Your task to perform on an android device: check the backup settings in the google photos Image 0: 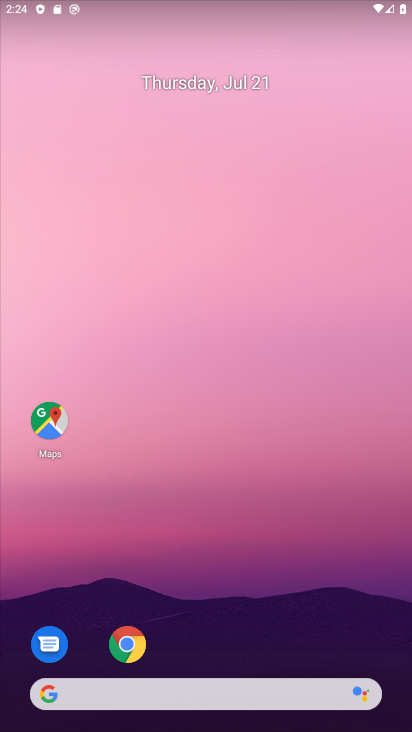
Step 0: drag from (204, 651) to (234, 109)
Your task to perform on an android device: check the backup settings in the google photos Image 1: 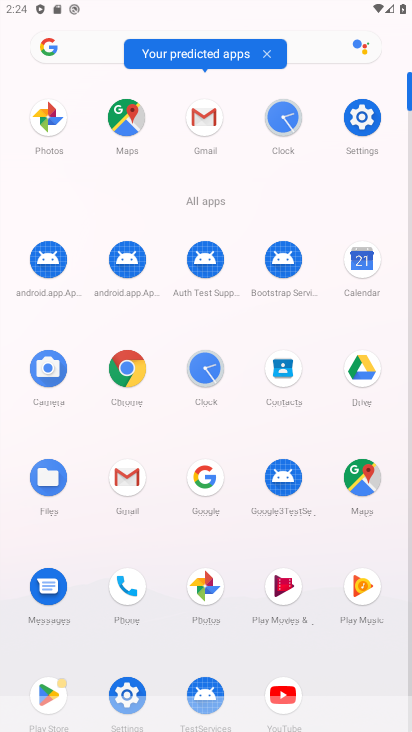
Step 1: click (196, 600)
Your task to perform on an android device: check the backup settings in the google photos Image 2: 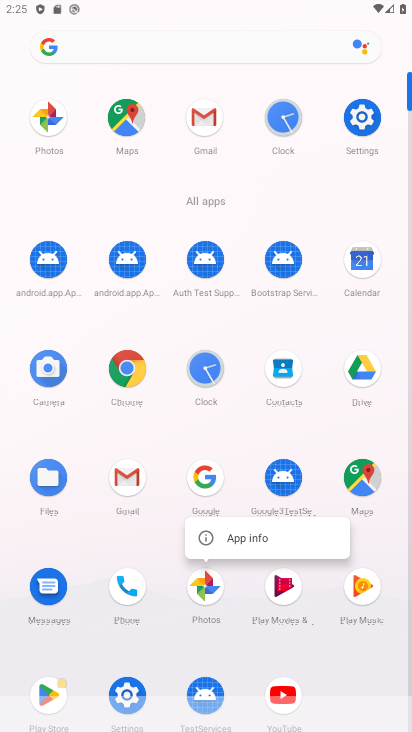
Step 2: click (200, 609)
Your task to perform on an android device: check the backup settings in the google photos Image 3: 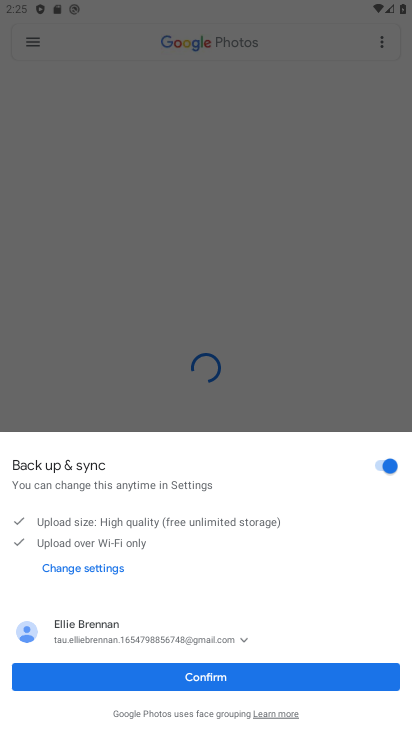
Step 3: click (216, 677)
Your task to perform on an android device: check the backup settings in the google photos Image 4: 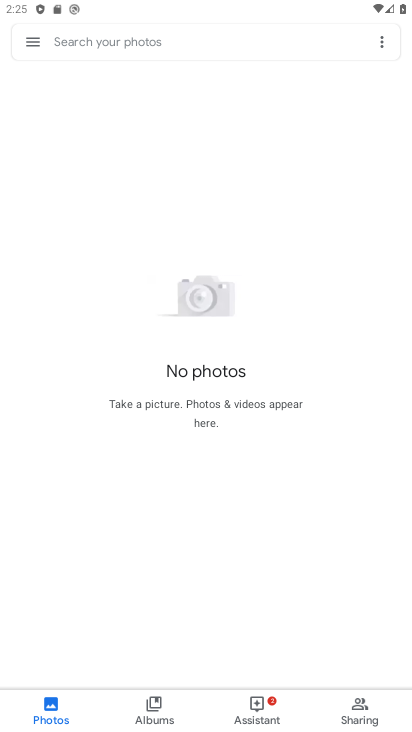
Step 4: press home button
Your task to perform on an android device: check the backup settings in the google photos Image 5: 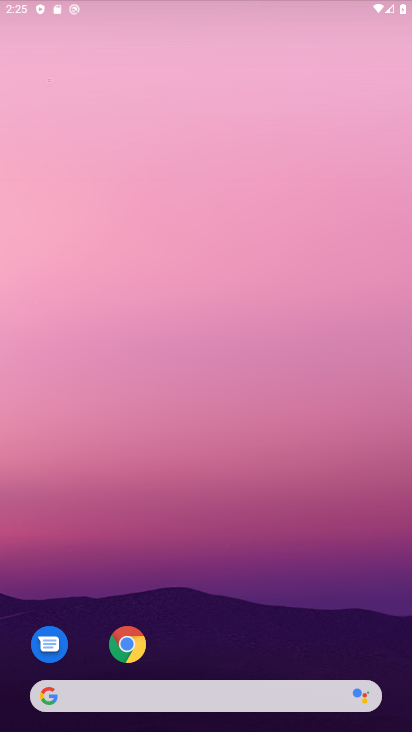
Step 5: drag from (267, 649) to (229, 0)
Your task to perform on an android device: check the backup settings in the google photos Image 6: 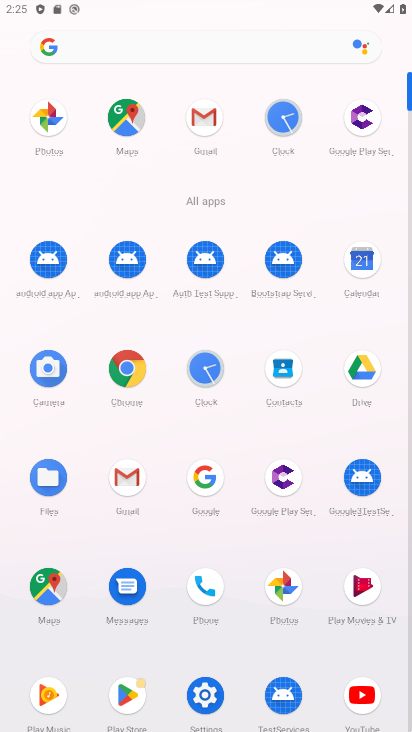
Step 6: click (285, 627)
Your task to perform on an android device: check the backup settings in the google photos Image 7: 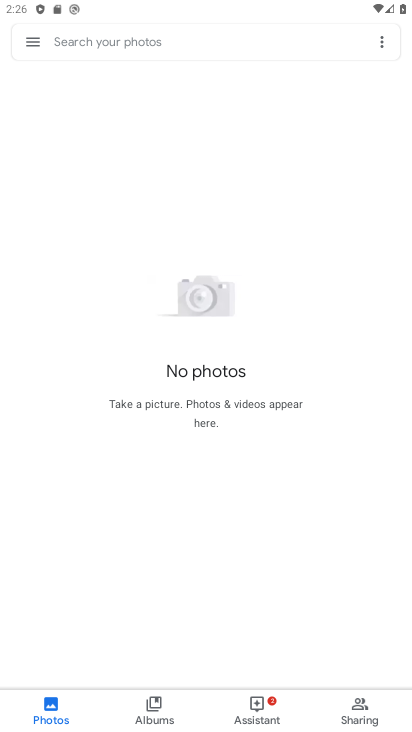
Step 7: click (40, 54)
Your task to perform on an android device: check the backup settings in the google photos Image 8: 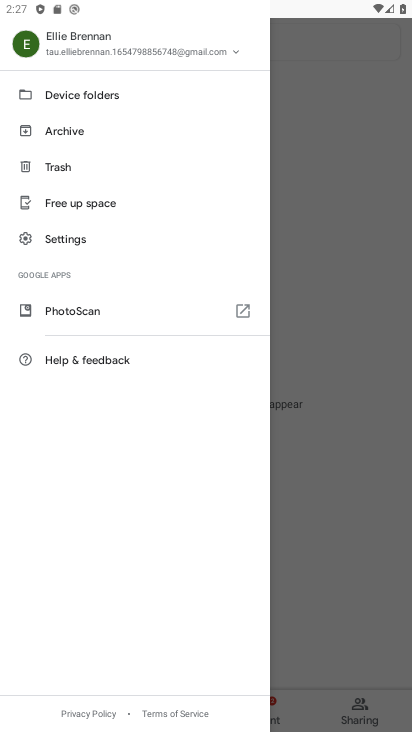
Step 8: click (73, 247)
Your task to perform on an android device: check the backup settings in the google photos Image 9: 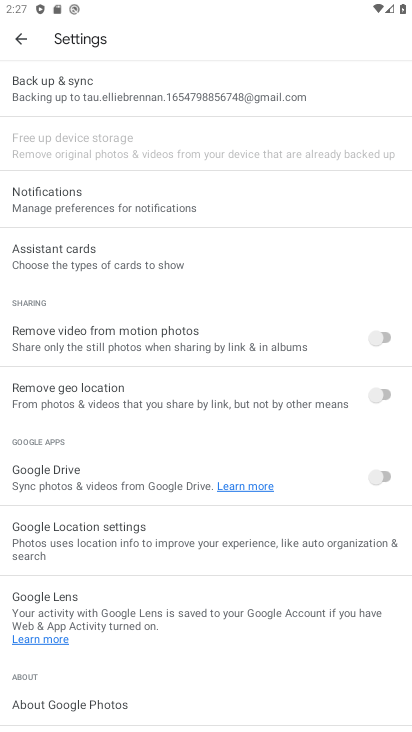
Step 9: click (58, 89)
Your task to perform on an android device: check the backup settings in the google photos Image 10: 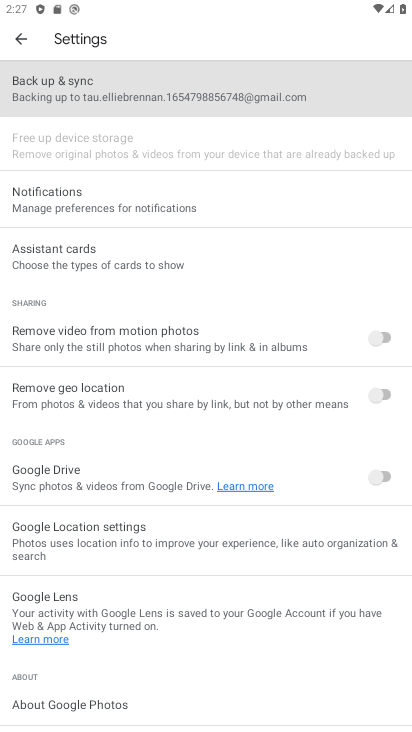
Step 10: click (56, 87)
Your task to perform on an android device: check the backup settings in the google photos Image 11: 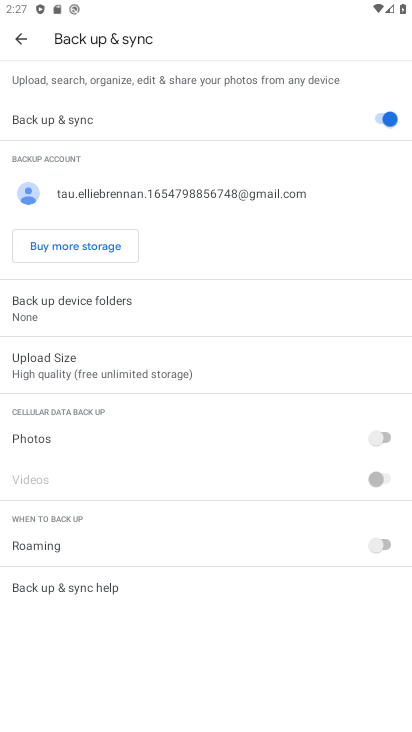
Step 11: click (65, 370)
Your task to perform on an android device: check the backup settings in the google photos Image 12: 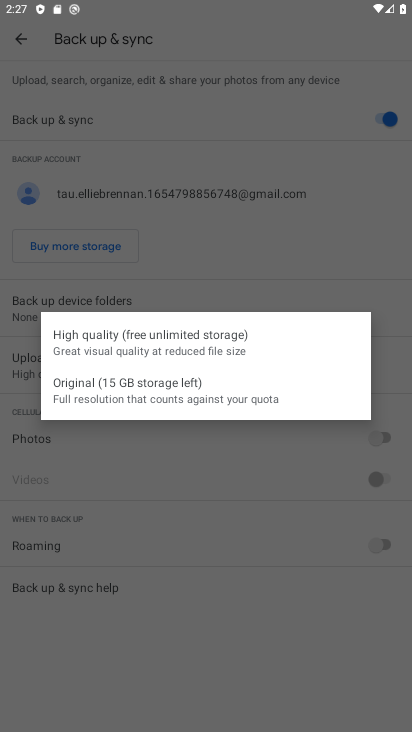
Step 12: click (119, 383)
Your task to perform on an android device: check the backup settings in the google photos Image 13: 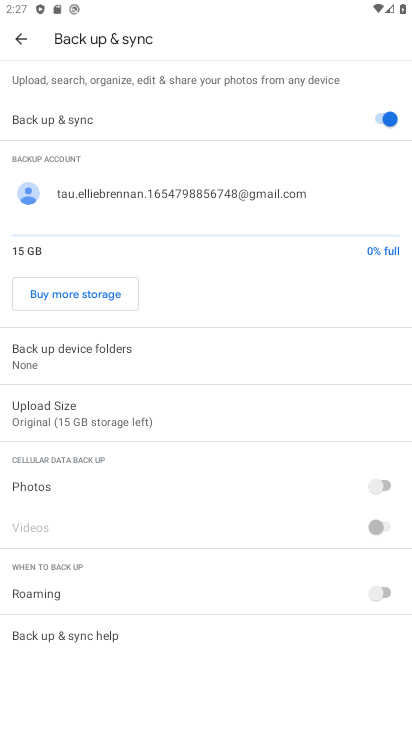
Step 13: task complete